Your task to perform on an android device: Open Youtube and go to "Your channel" Image 0: 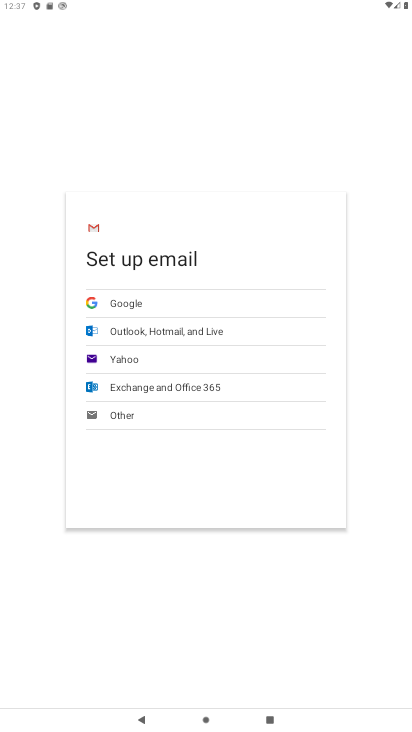
Step 0: press home button
Your task to perform on an android device: Open Youtube and go to "Your channel" Image 1: 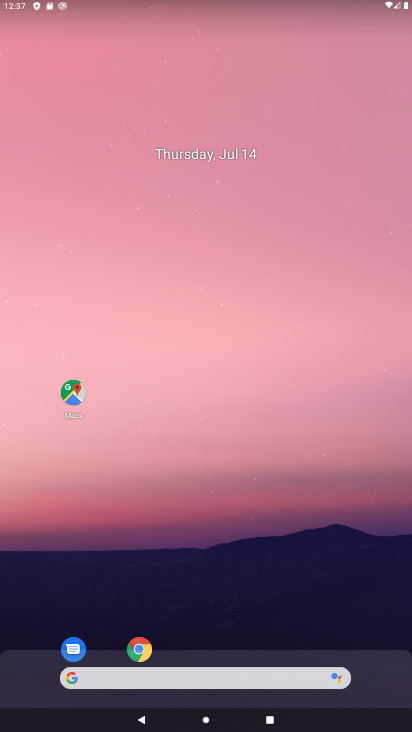
Step 1: drag from (333, 621) to (346, 134)
Your task to perform on an android device: Open Youtube and go to "Your channel" Image 2: 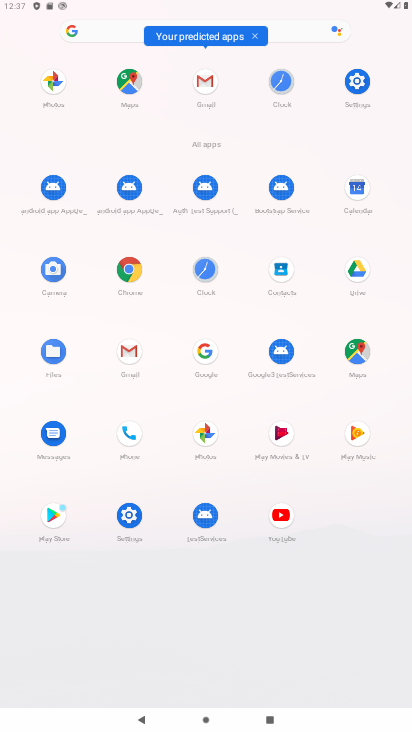
Step 2: click (276, 513)
Your task to perform on an android device: Open Youtube and go to "Your channel" Image 3: 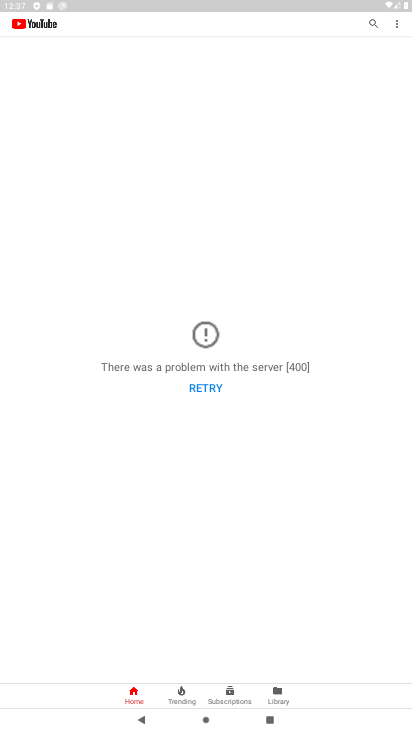
Step 3: task complete